Your task to perform on an android device: turn on priority inbox in the gmail app Image 0: 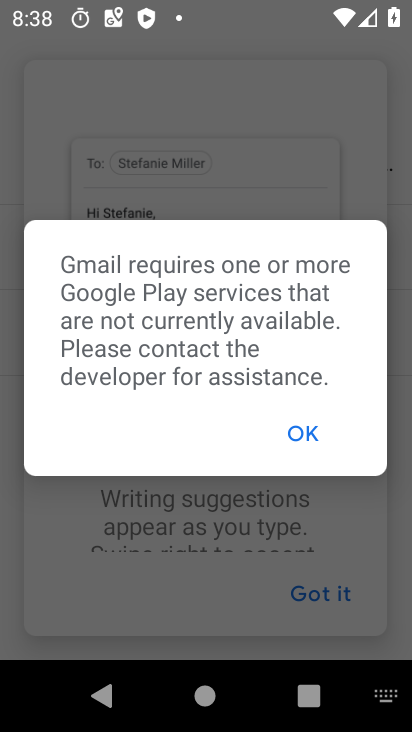
Step 0: press home button
Your task to perform on an android device: turn on priority inbox in the gmail app Image 1: 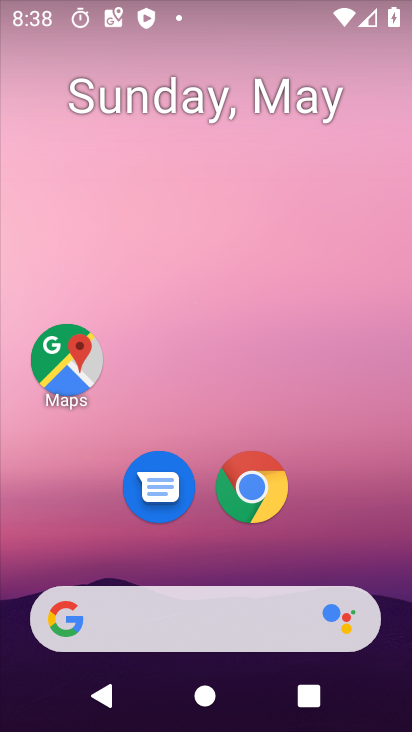
Step 1: drag from (56, 493) to (213, 137)
Your task to perform on an android device: turn on priority inbox in the gmail app Image 2: 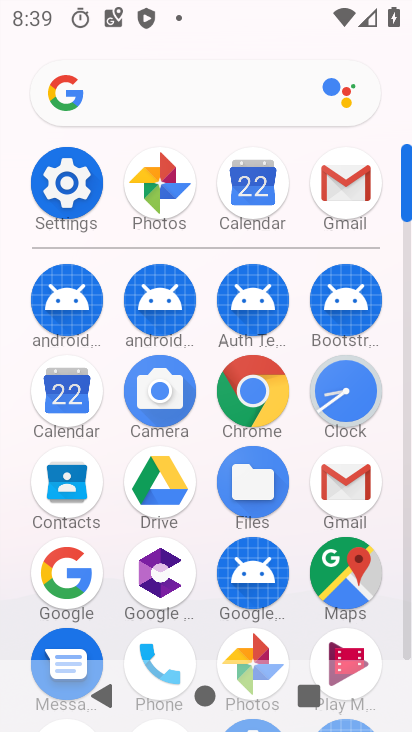
Step 2: click (330, 185)
Your task to perform on an android device: turn on priority inbox in the gmail app Image 3: 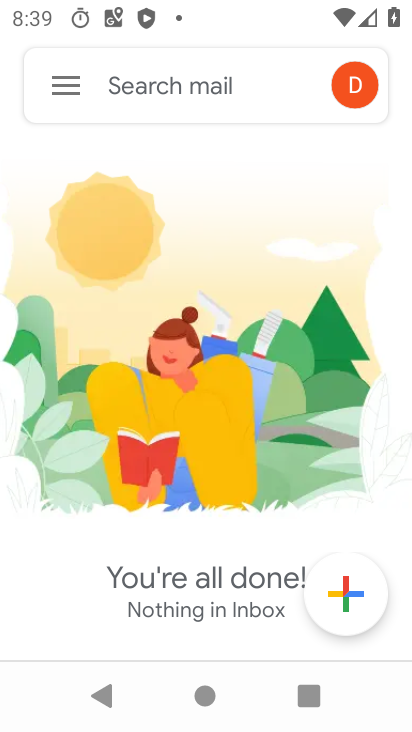
Step 3: click (63, 91)
Your task to perform on an android device: turn on priority inbox in the gmail app Image 4: 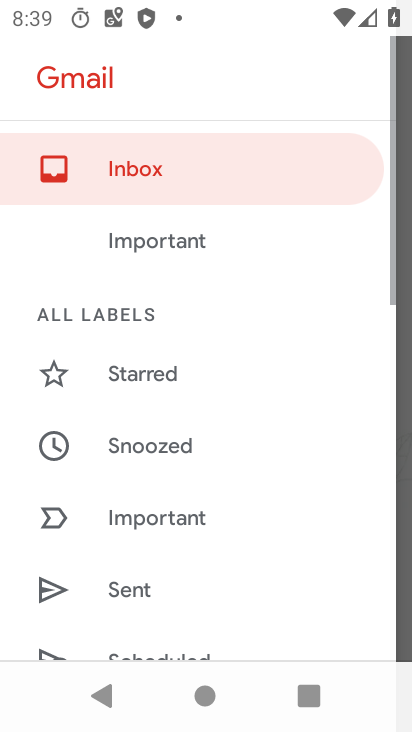
Step 4: drag from (65, 620) to (250, 94)
Your task to perform on an android device: turn on priority inbox in the gmail app Image 5: 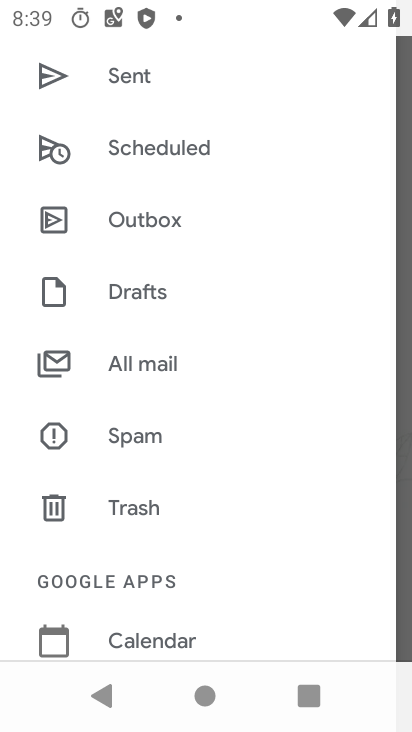
Step 5: drag from (132, 623) to (300, 124)
Your task to perform on an android device: turn on priority inbox in the gmail app Image 6: 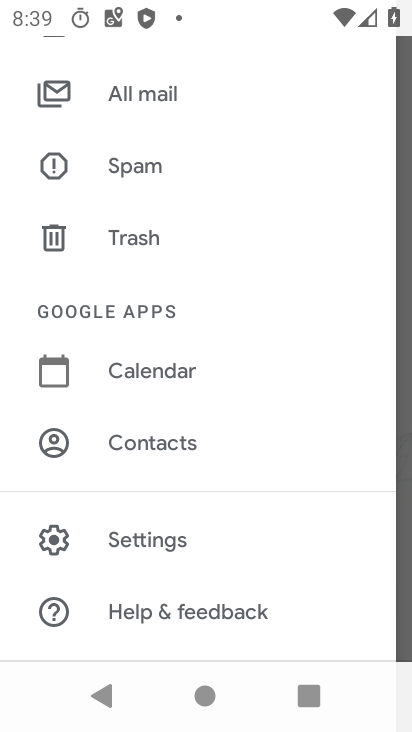
Step 6: click (148, 551)
Your task to perform on an android device: turn on priority inbox in the gmail app Image 7: 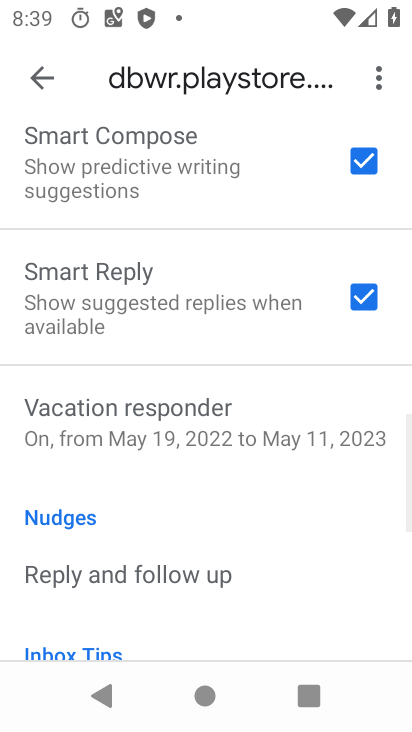
Step 7: task complete